Your task to perform on an android device: add a label to a message in the gmail app Image 0: 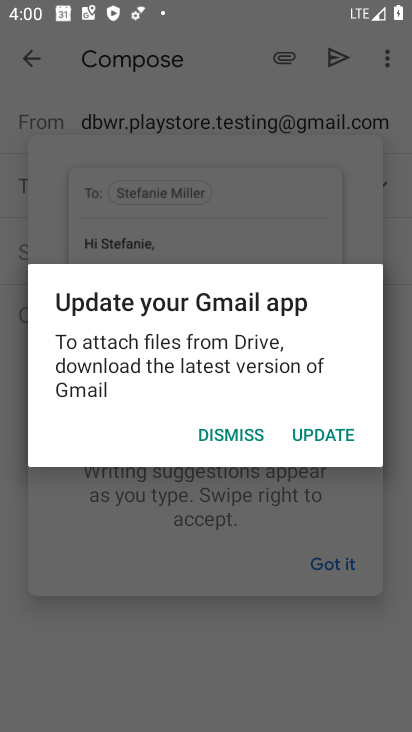
Step 0: press home button
Your task to perform on an android device: add a label to a message in the gmail app Image 1: 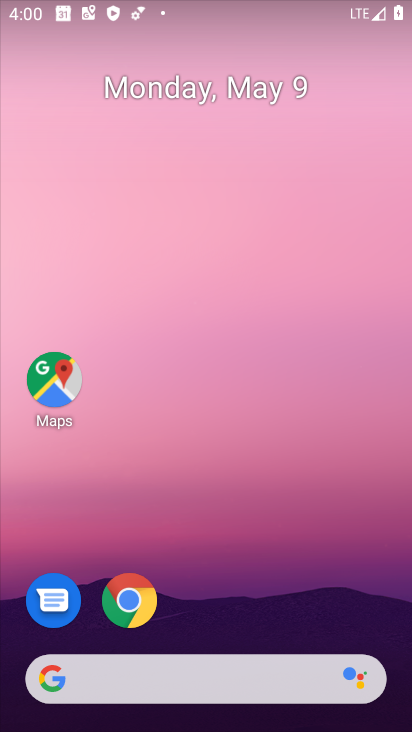
Step 1: drag from (257, 687) to (206, 66)
Your task to perform on an android device: add a label to a message in the gmail app Image 2: 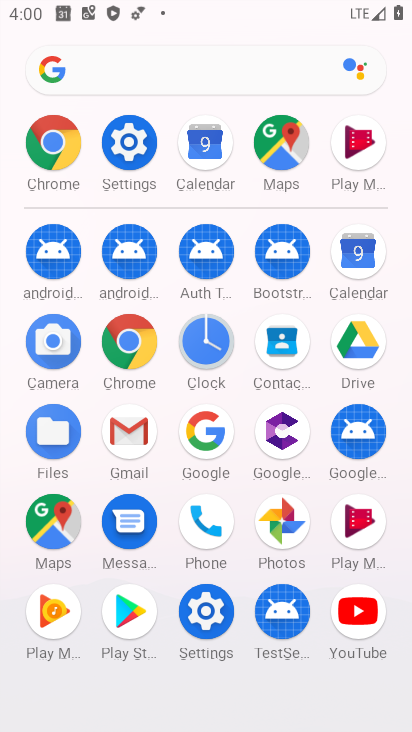
Step 2: click (130, 447)
Your task to perform on an android device: add a label to a message in the gmail app Image 3: 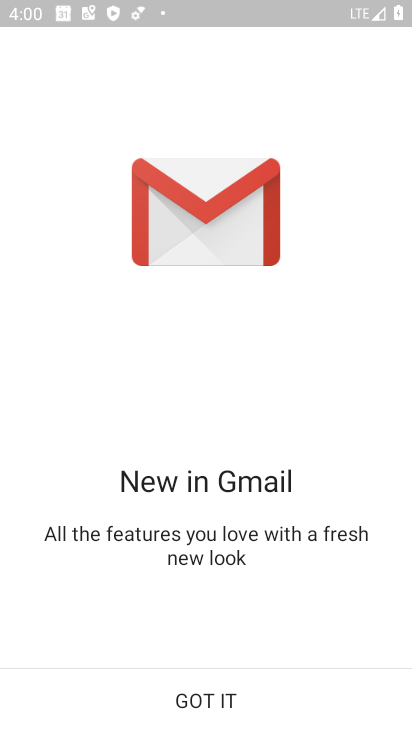
Step 3: click (203, 709)
Your task to perform on an android device: add a label to a message in the gmail app Image 4: 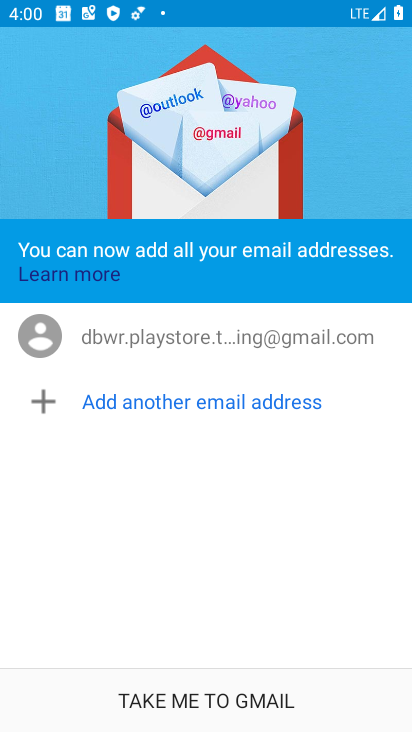
Step 4: click (203, 709)
Your task to perform on an android device: add a label to a message in the gmail app Image 5: 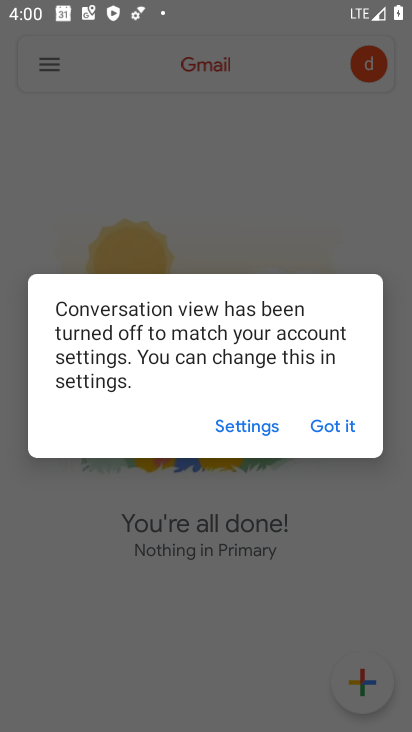
Step 5: click (315, 418)
Your task to perform on an android device: add a label to a message in the gmail app Image 6: 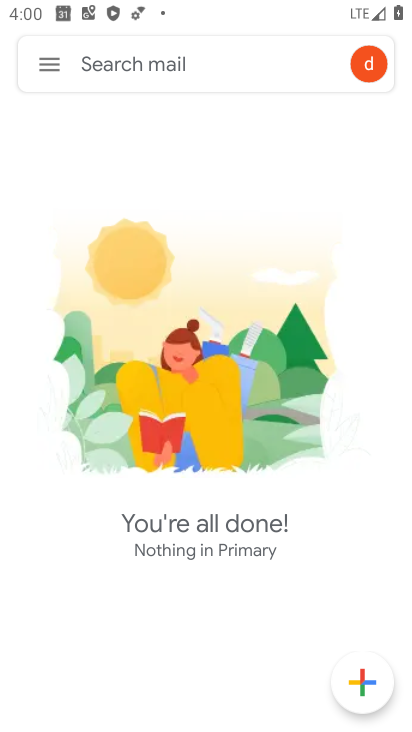
Step 6: click (374, 67)
Your task to perform on an android device: add a label to a message in the gmail app Image 7: 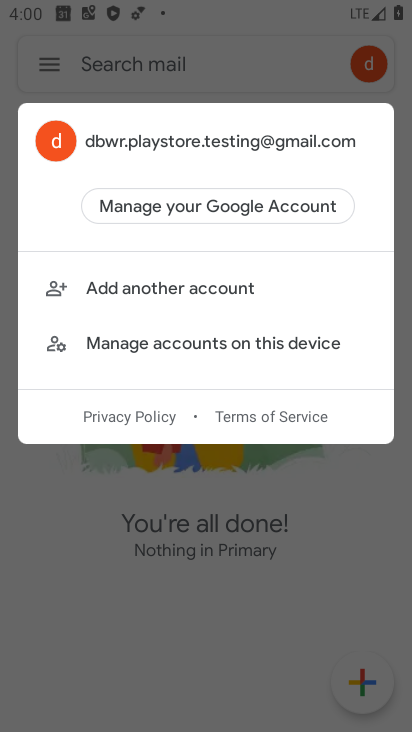
Step 7: click (341, 506)
Your task to perform on an android device: add a label to a message in the gmail app Image 8: 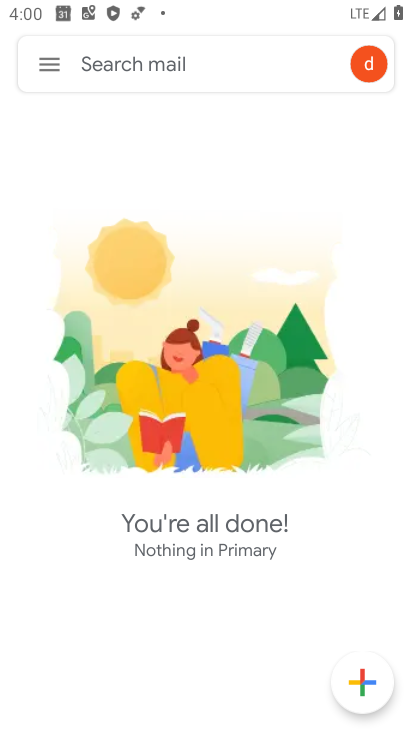
Step 8: task complete